Your task to perform on an android device: stop showing notifications on the lock screen Image 0: 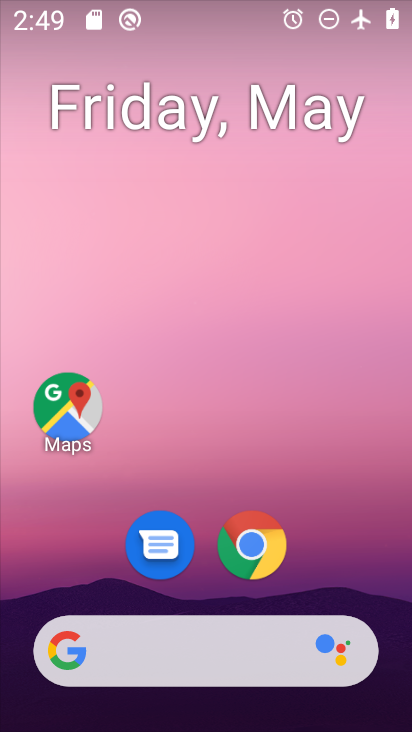
Step 0: drag from (322, 489) to (322, 239)
Your task to perform on an android device: stop showing notifications on the lock screen Image 1: 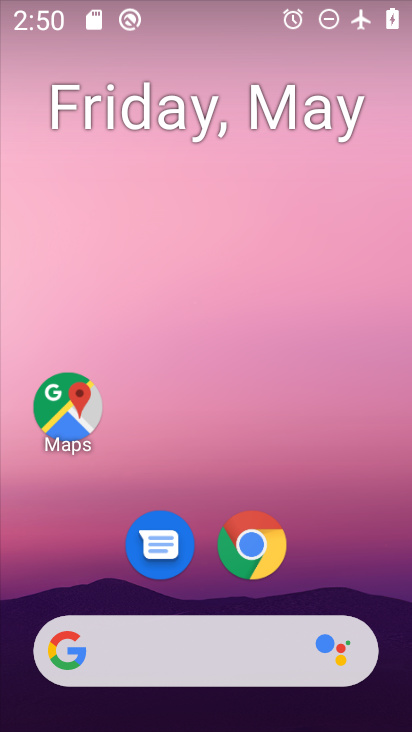
Step 1: drag from (331, 565) to (274, 251)
Your task to perform on an android device: stop showing notifications on the lock screen Image 2: 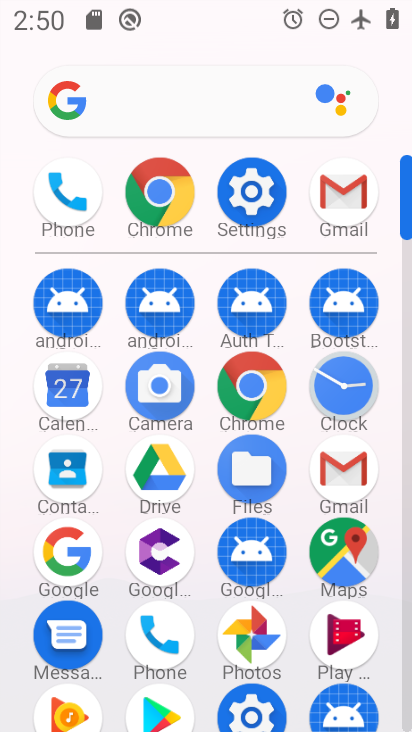
Step 2: click (247, 196)
Your task to perform on an android device: stop showing notifications on the lock screen Image 3: 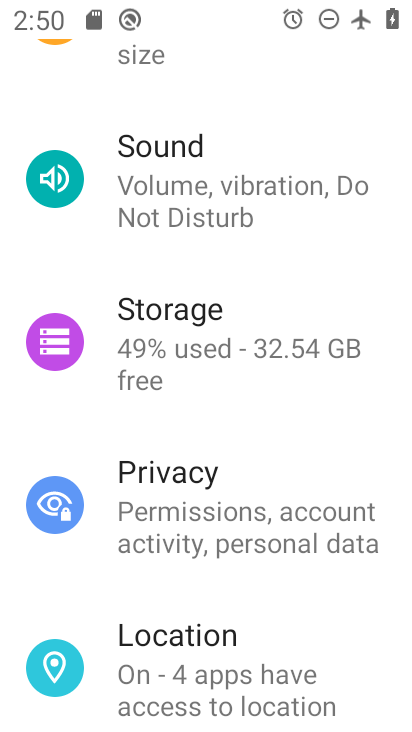
Step 3: drag from (247, 181) to (261, 546)
Your task to perform on an android device: stop showing notifications on the lock screen Image 4: 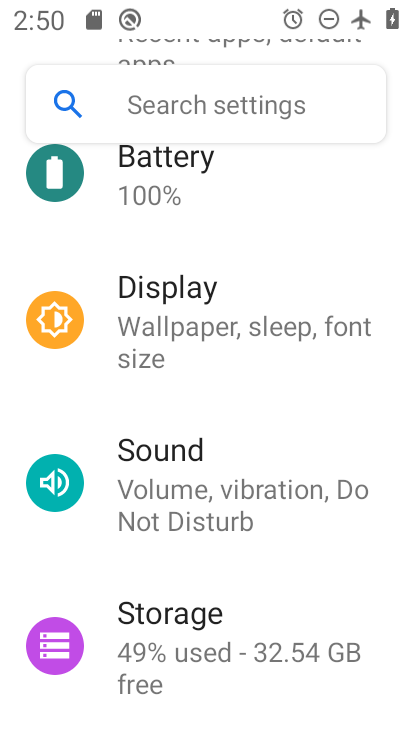
Step 4: drag from (260, 185) to (246, 650)
Your task to perform on an android device: stop showing notifications on the lock screen Image 5: 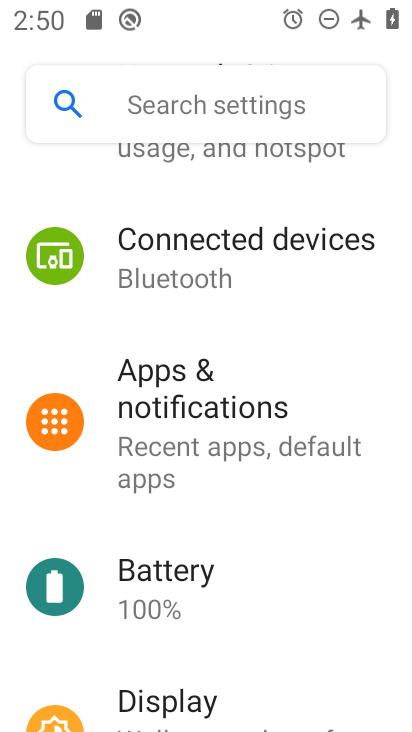
Step 5: click (233, 664)
Your task to perform on an android device: stop showing notifications on the lock screen Image 6: 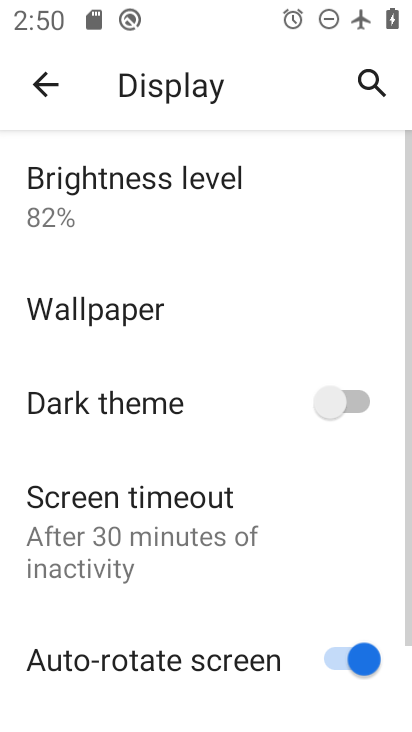
Step 6: click (45, 98)
Your task to perform on an android device: stop showing notifications on the lock screen Image 7: 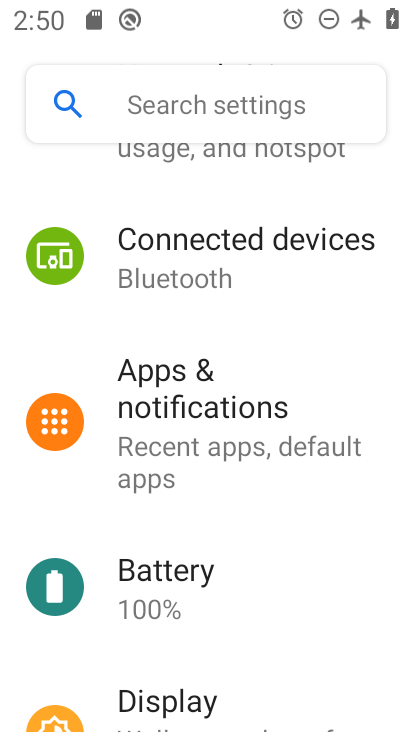
Step 7: click (186, 417)
Your task to perform on an android device: stop showing notifications on the lock screen Image 8: 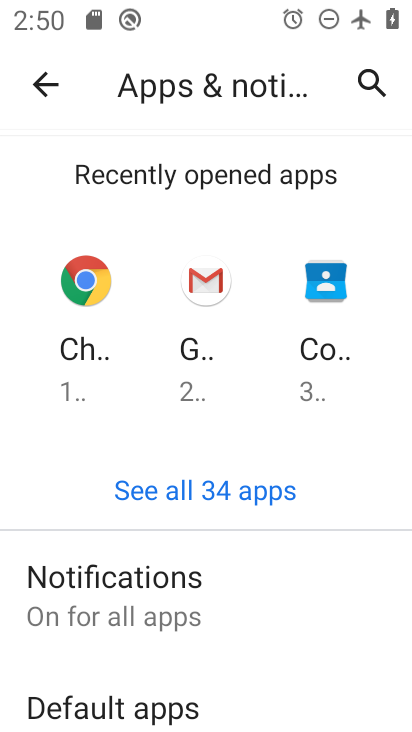
Step 8: drag from (247, 630) to (268, 375)
Your task to perform on an android device: stop showing notifications on the lock screen Image 9: 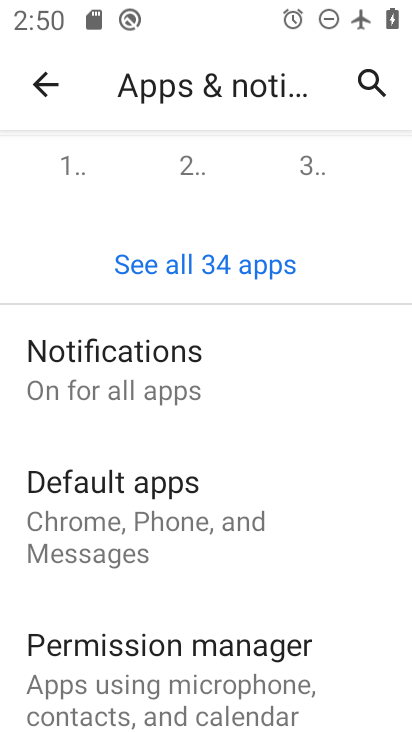
Step 9: click (150, 374)
Your task to perform on an android device: stop showing notifications on the lock screen Image 10: 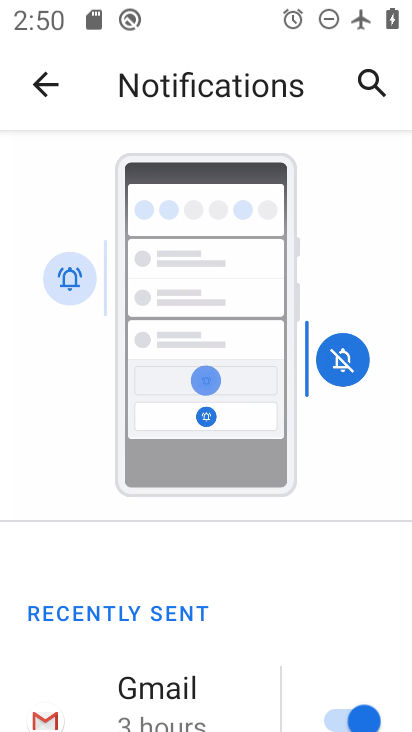
Step 10: drag from (243, 623) to (278, 269)
Your task to perform on an android device: stop showing notifications on the lock screen Image 11: 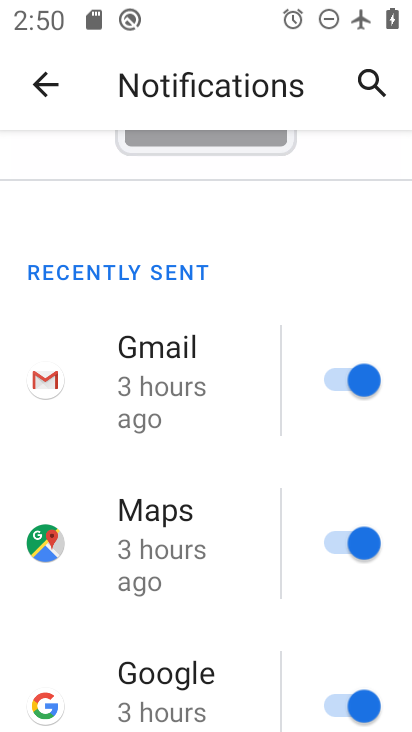
Step 11: drag from (147, 663) to (236, 85)
Your task to perform on an android device: stop showing notifications on the lock screen Image 12: 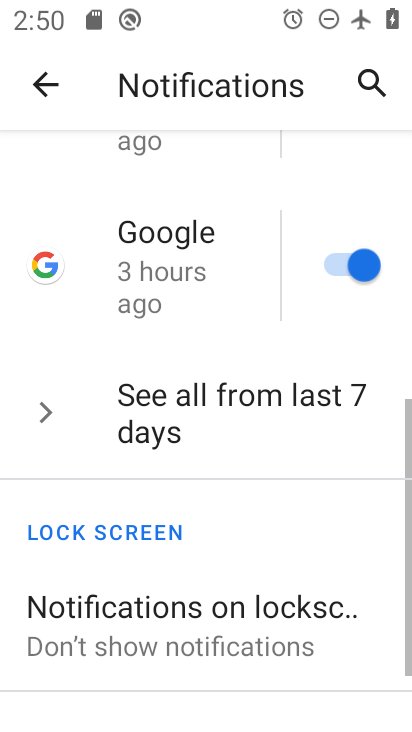
Step 12: drag from (162, 567) to (167, 276)
Your task to perform on an android device: stop showing notifications on the lock screen Image 13: 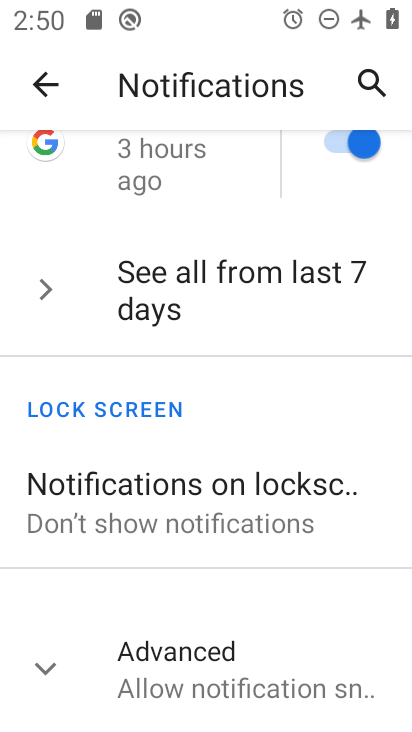
Step 13: click (191, 498)
Your task to perform on an android device: stop showing notifications on the lock screen Image 14: 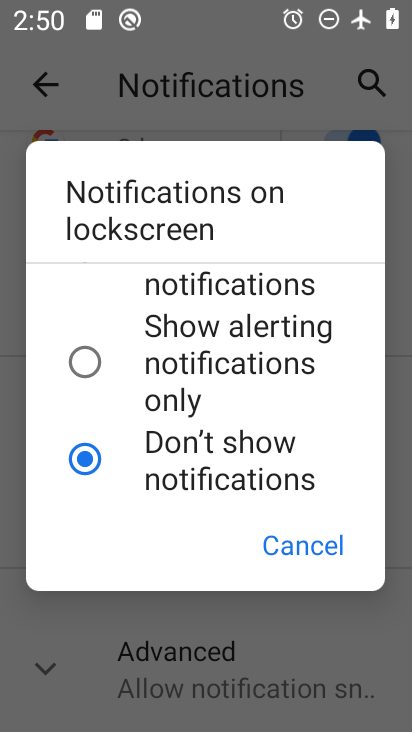
Step 14: task complete